Your task to perform on an android device: check data usage Image 0: 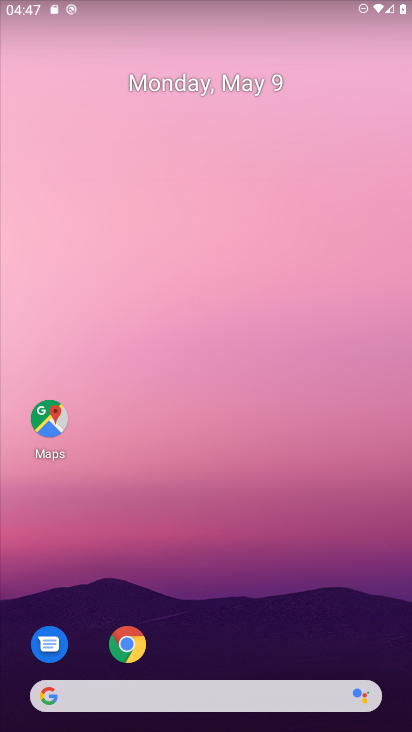
Step 0: drag from (251, 597) to (293, 232)
Your task to perform on an android device: check data usage Image 1: 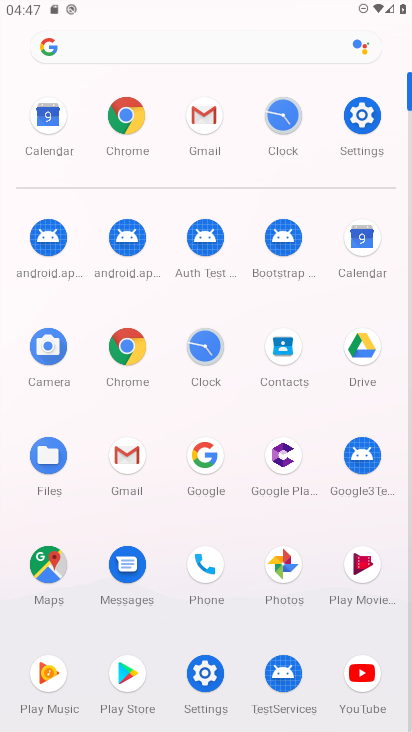
Step 1: click (359, 127)
Your task to perform on an android device: check data usage Image 2: 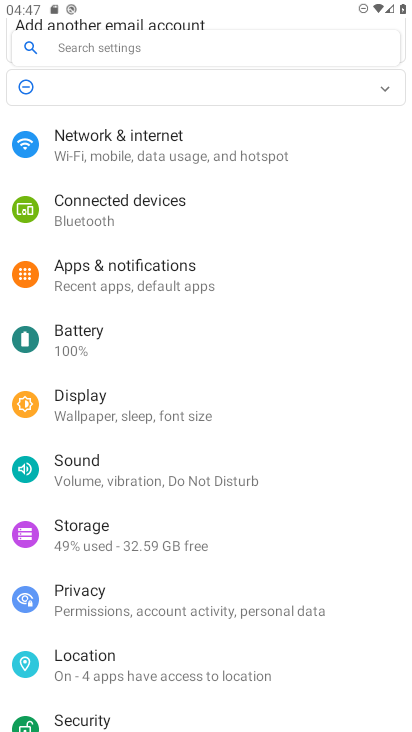
Step 2: click (167, 142)
Your task to perform on an android device: check data usage Image 3: 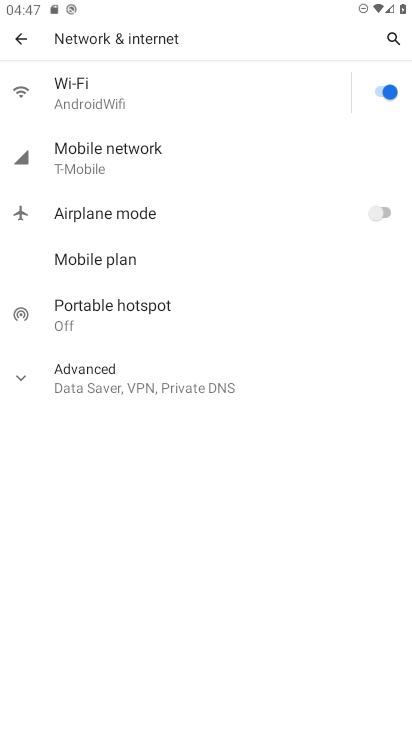
Step 3: click (162, 159)
Your task to perform on an android device: check data usage Image 4: 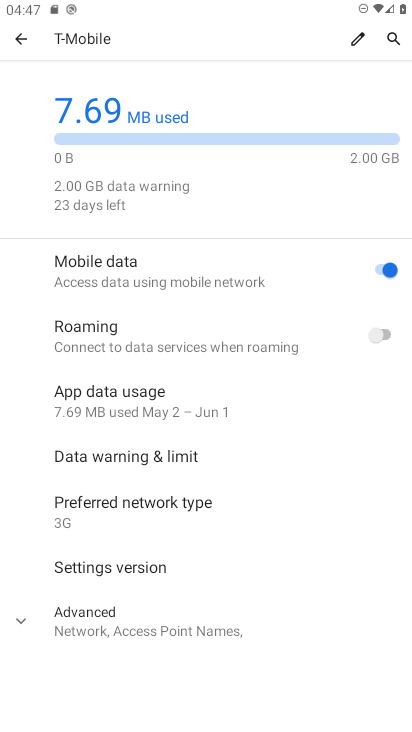
Step 4: task complete